Your task to perform on an android device: Open the calendar and show me this week's events Image 0: 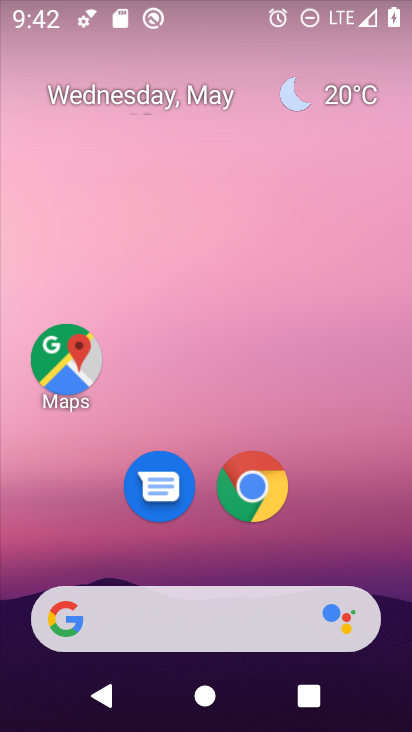
Step 0: drag from (385, 591) to (326, 277)
Your task to perform on an android device: Open the calendar and show me this week's events Image 1: 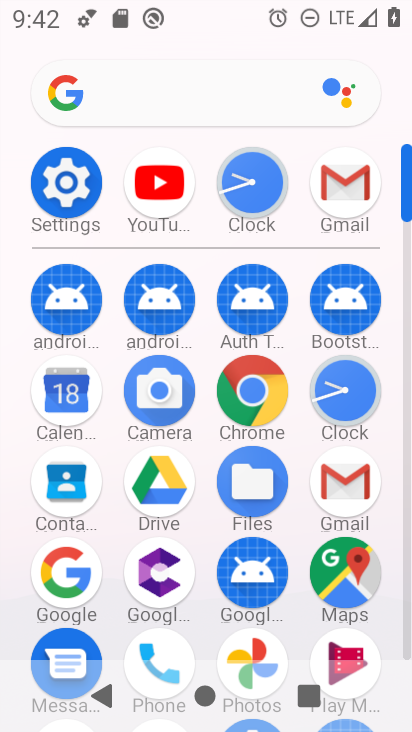
Step 1: click (406, 635)
Your task to perform on an android device: Open the calendar and show me this week's events Image 2: 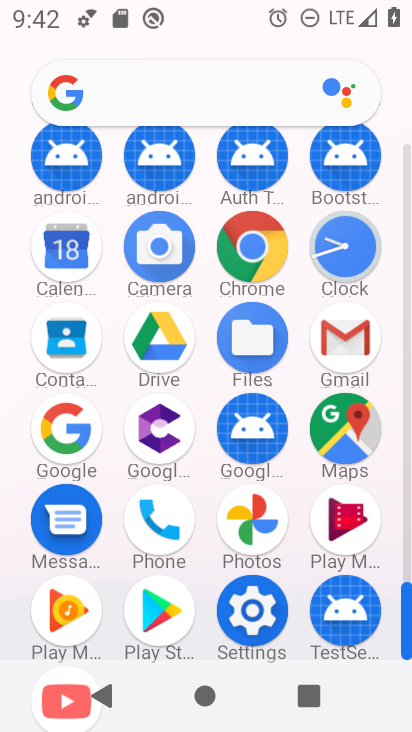
Step 2: click (62, 247)
Your task to perform on an android device: Open the calendar and show me this week's events Image 3: 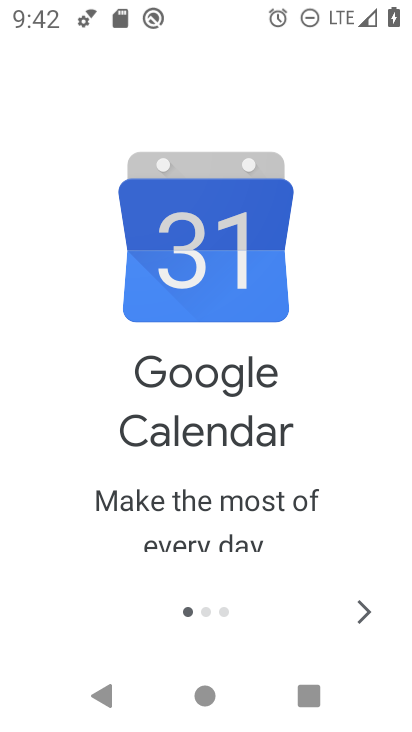
Step 3: click (364, 612)
Your task to perform on an android device: Open the calendar and show me this week's events Image 4: 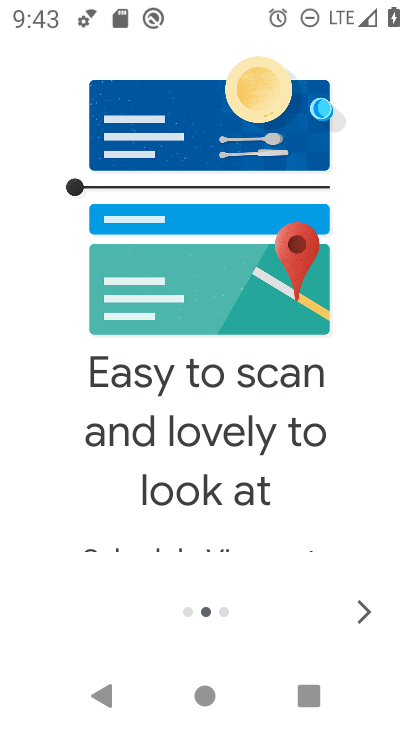
Step 4: click (361, 615)
Your task to perform on an android device: Open the calendar and show me this week's events Image 5: 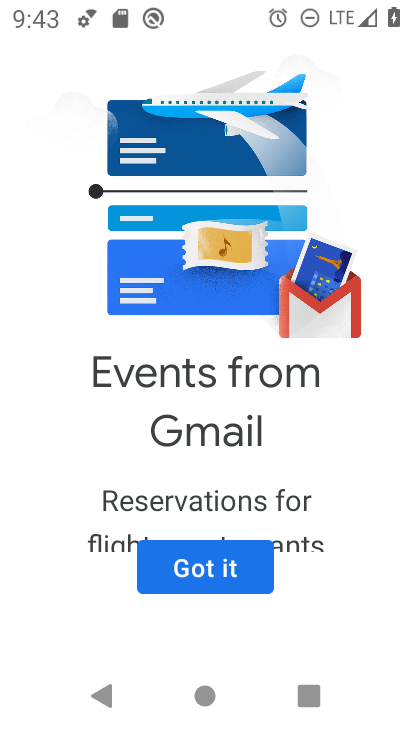
Step 5: click (196, 565)
Your task to perform on an android device: Open the calendar and show me this week's events Image 6: 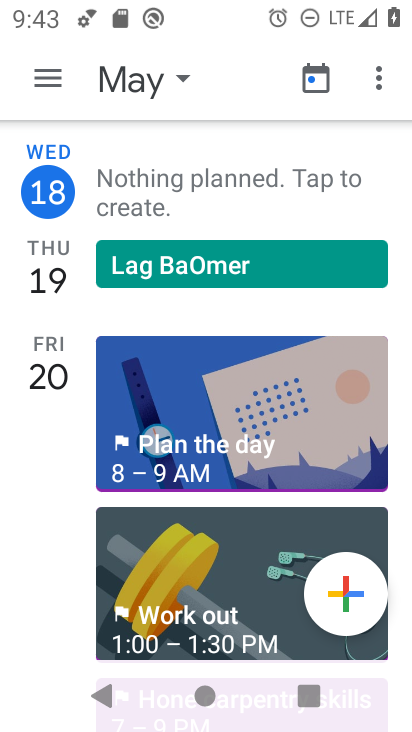
Step 6: click (43, 72)
Your task to perform on an android device: Open the calendar and show me this week's events Image 7: 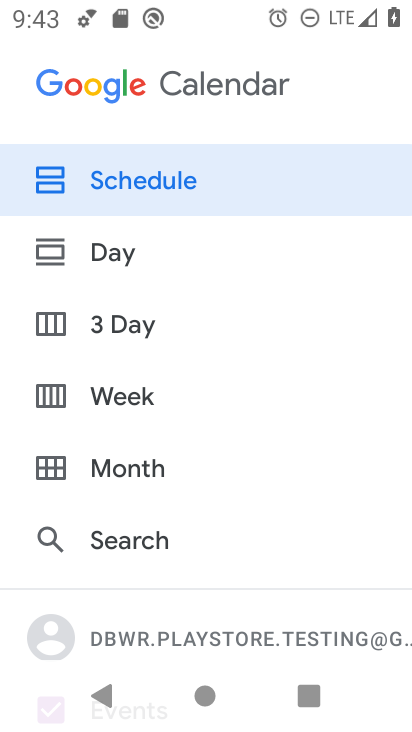
Step 7: click (119, 387)
Your task to perform on an android device: Open the calendar and show me this week's events Image 8: 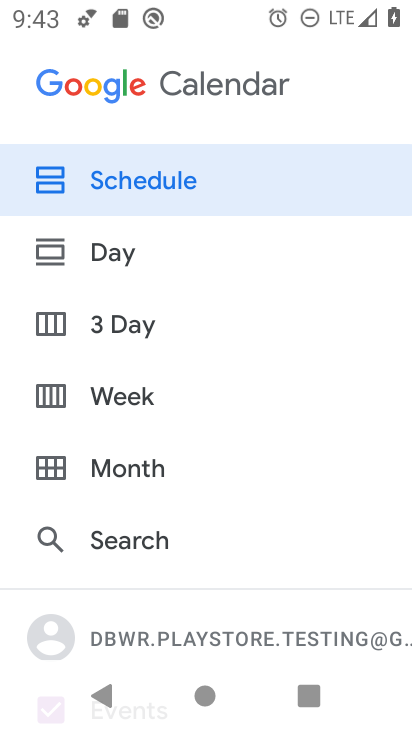
Step 8: click (105, 387)
Your task to perform on an android device: Open the calendar and show me this week's events Image 9: 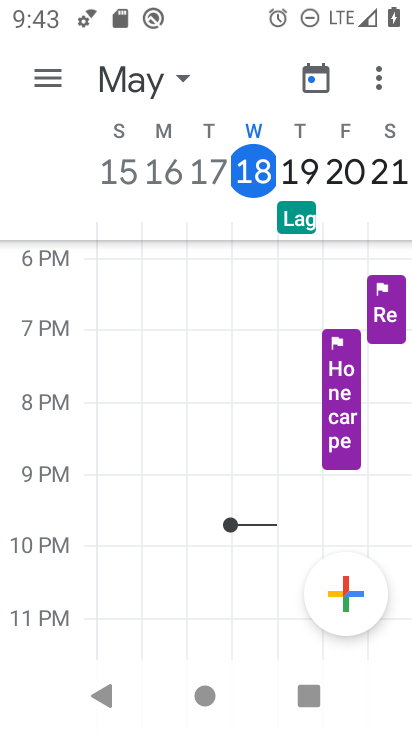
Step 9: task complete